Your task to perform on an android device: toggle airplane mode Image 0: 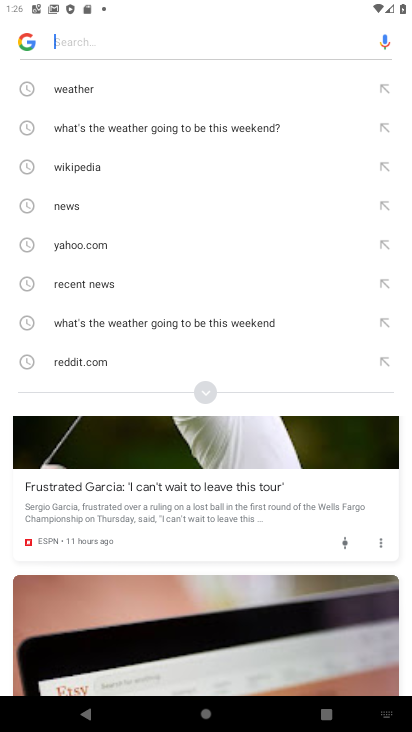
Step 0: press home button
Your task to perform on an android device: toggle airplane mode Image 1: 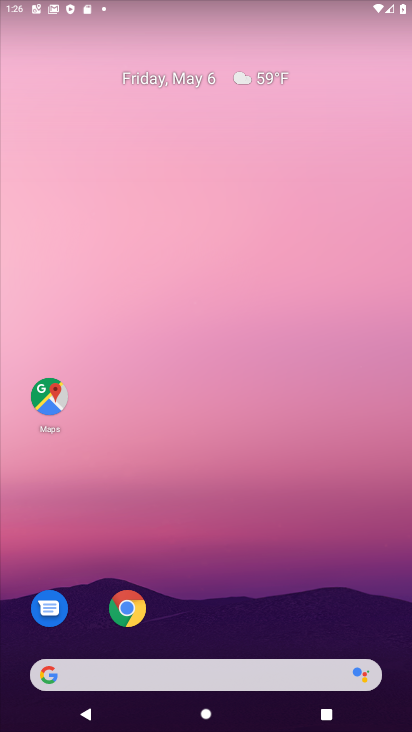
Step 1: drag from (252, 639) to (358, 106)
Your task to perform on an android device: toggle airplane mode Image 2: 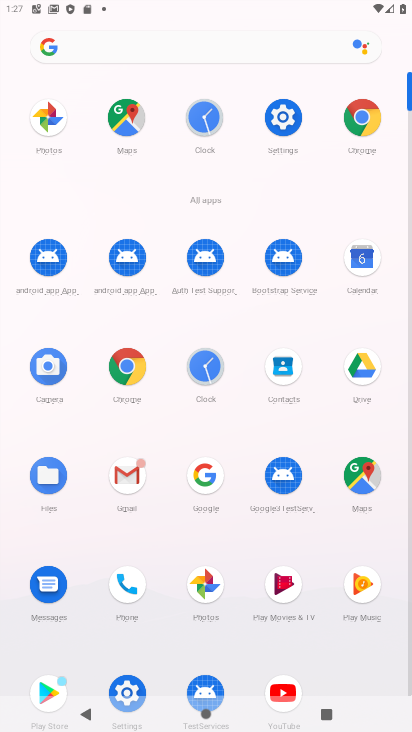
Step 2: click (285, 118)
Your task to perform on an android device: toggle airplane mode Image 3: 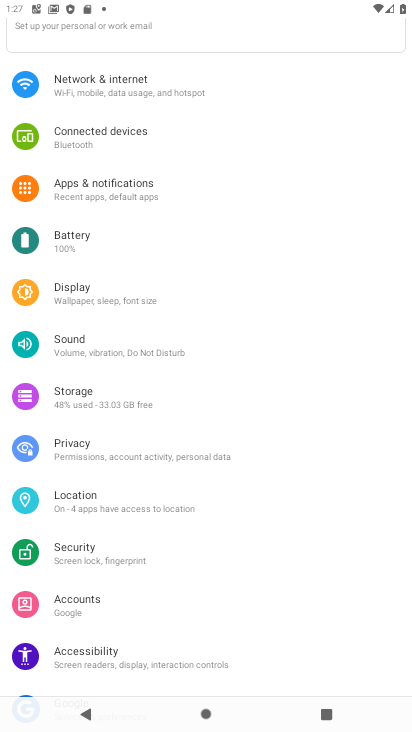
Step 3: click (143, 93)
Your task to perform on an android device: toggle airplane mode Image 4: 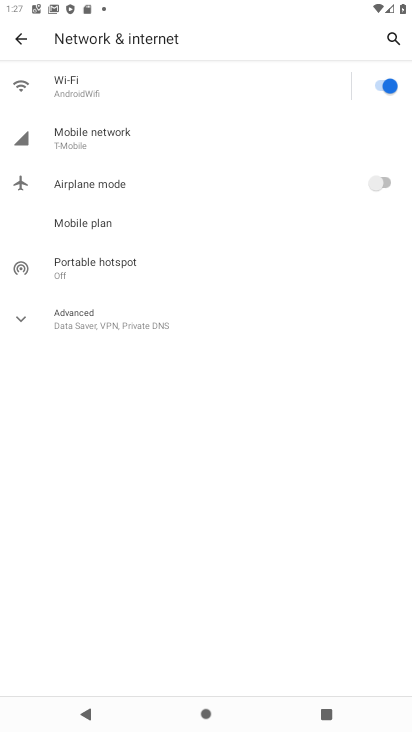
Step 4: click (375, 191)
Your task to perform on an android device: toggle airplane mode Image 5: 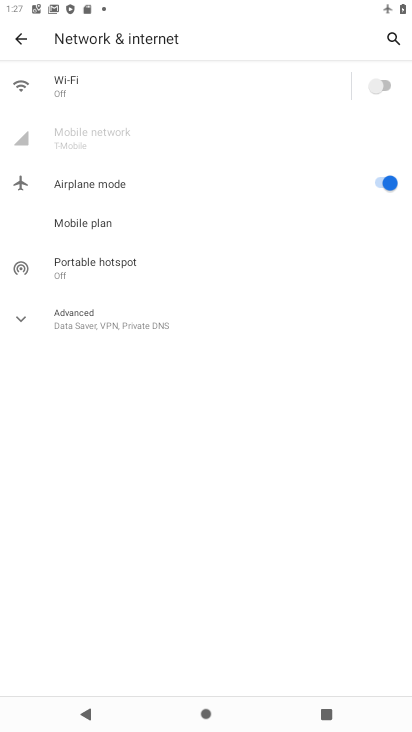
Step 5: task complete